Your task to perform on an android device: turn notification dots off Image 0: 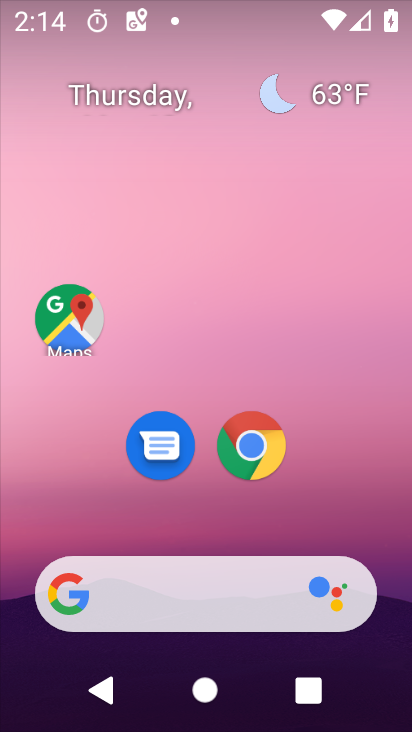
Step 0: drag from (170, 615) to (254, 104)
Your task to perform on an android device: turn notification dots off Image 1: 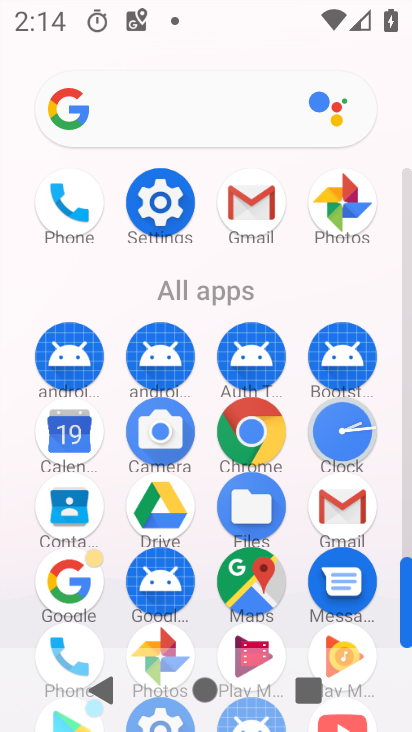
Step 1: click (170, 203)
Your task to perform on an android device: turn notification dots off Image 2: 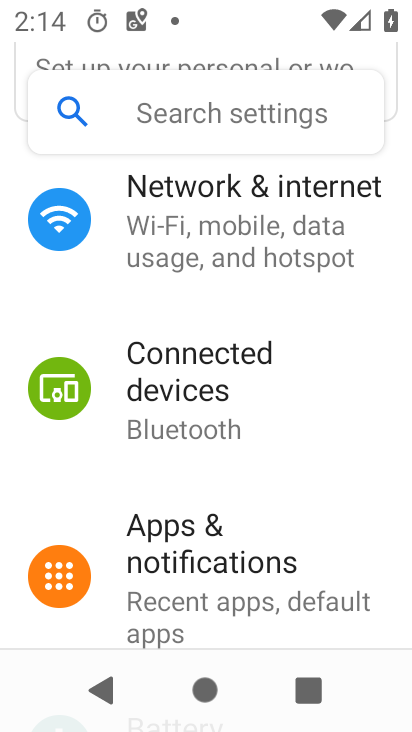
Step 2: click (238, 565)
Your task to perform on an android device: turn notification dots off Image 3: 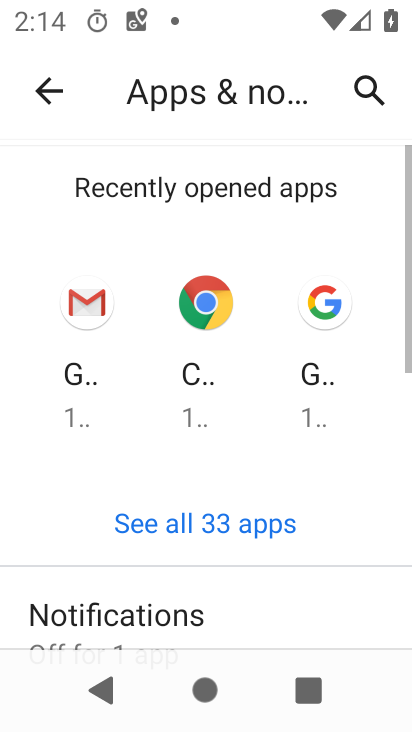
Step 3: drag from (187, 561) to (233, 34)
Your task to perform on an android device: turn notification dots off Image 4: 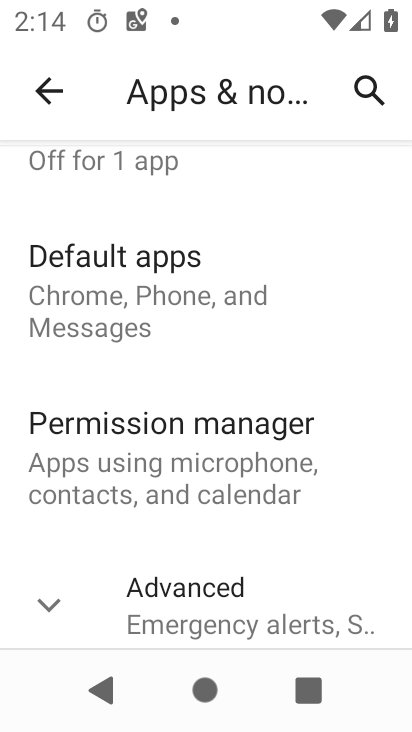
Step 4: drag from (215, 576) to (236, 224)
Your task to perform on an android device: turn notification dots off Image 5: 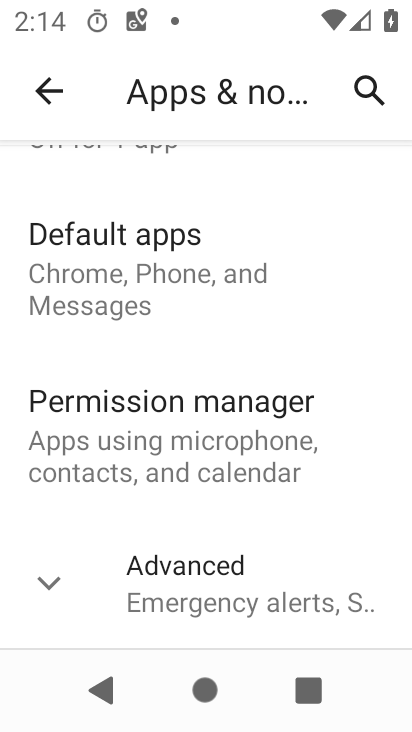
Step 5: drag from (154, 161) to (190, 452)
Your task to perform on an android device: turn notification dots off Image 6: 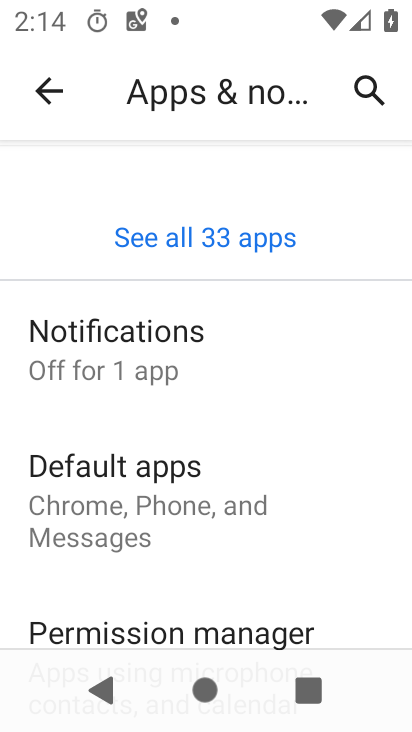
Step 6: click (133, 366)
Your task to perform on an android device: turn notification dots off Image 7: 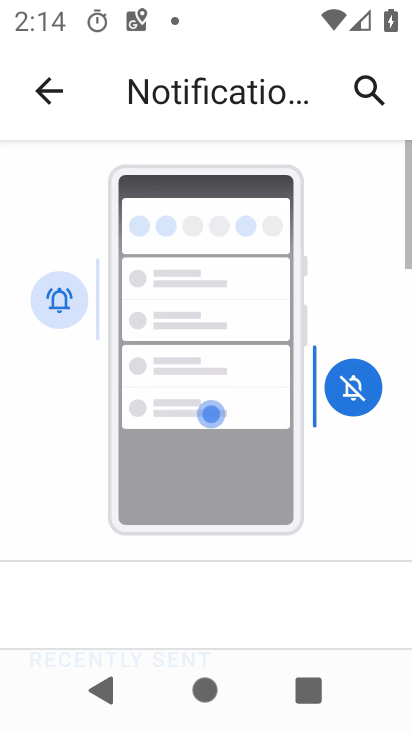
Step 7: drag from (281, 608) to (318, 63)
Your task to perform on an android device: turn notification dots off Image 8: 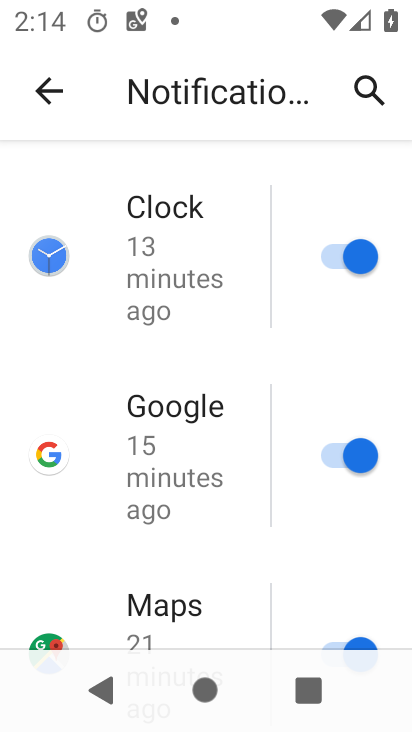
Step 8: drag from (275, 619) to (342, 21)
Your task to perform on an android device: turn notification dots off Image 9: 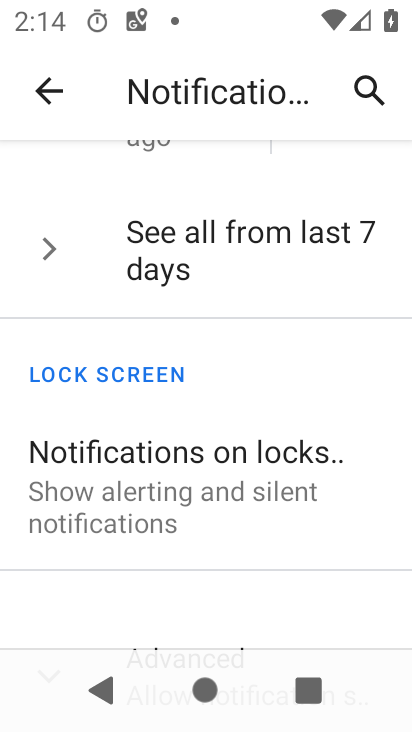
Step 9: drag from (238, 542) to (263, 143)
Your task to perform on an android device: turn notification dots off Image 10: 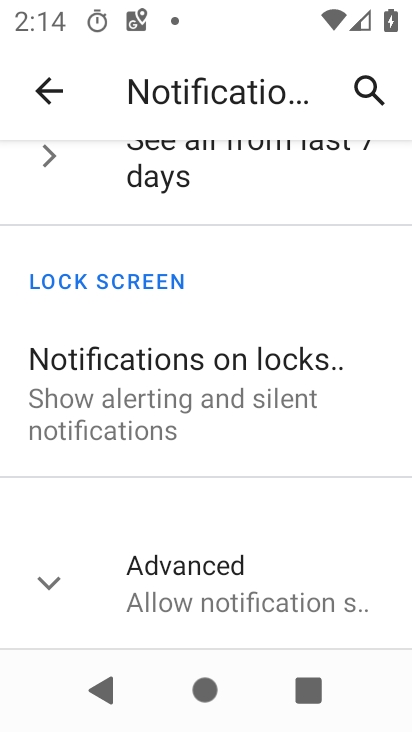
Step 10: click (182, 587)
Your task to perform on an android device: turn notification dots off Image 11: 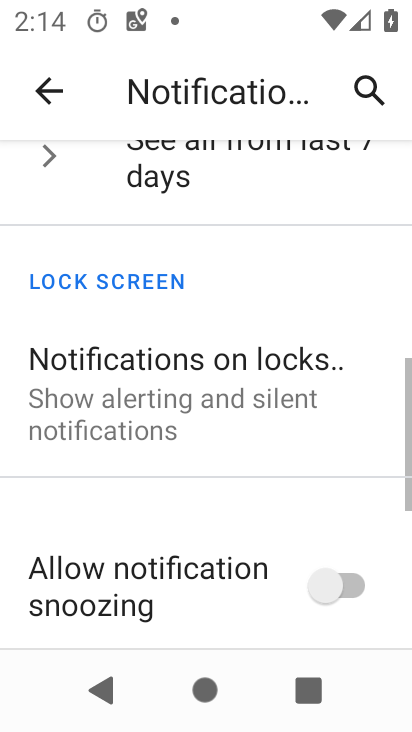
Step 11: drag from (240, 566) to (281, 191)
Your task to perform on an android device: turn notification dots off Image 12: 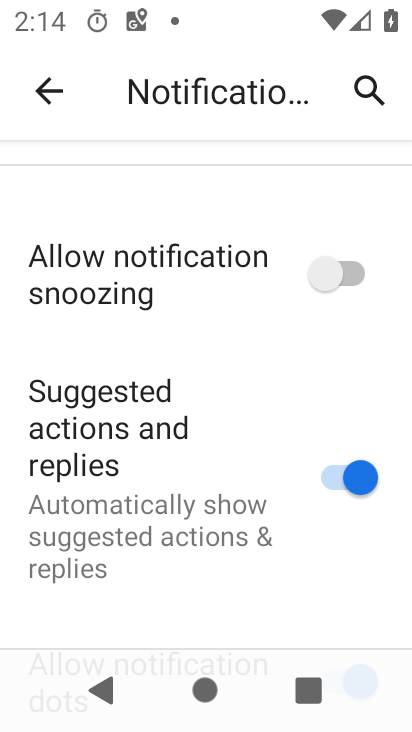
Step 12: drag from (248, 554) to (268, 172)
Your task to perform on an android device: turn notification dots off Image 13: 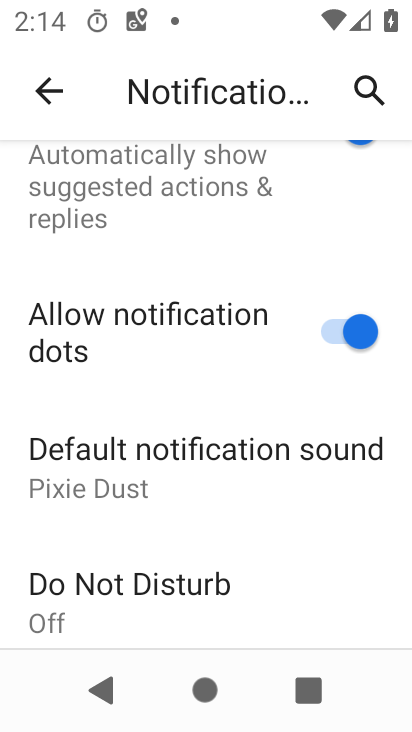
Step 13: click (353, 349)
Your task to perform on an android device: turn notification dots off Image 14: 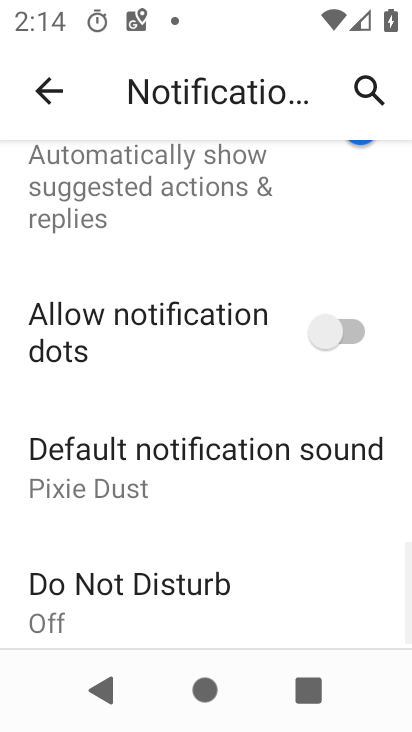
Step 14: task complete